Your task to perform on an android device: turn off location Image 0: 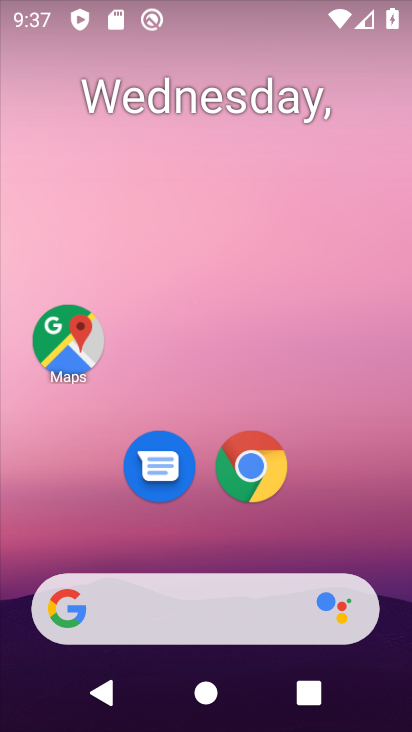
Step 0: drag from (379, 369) to (369, 21)
Your task to perform on an android device: turn off location Image 1: 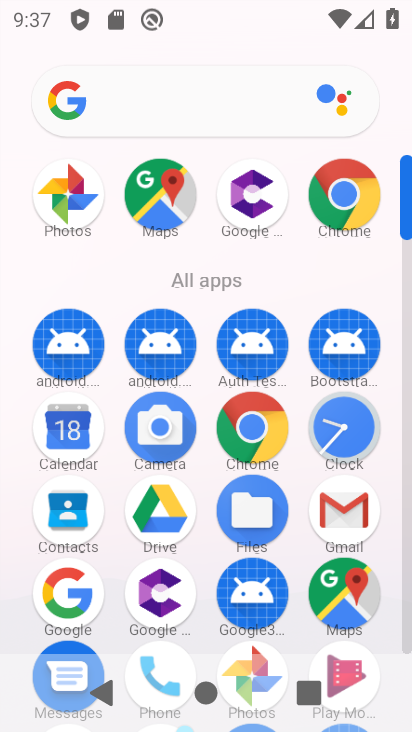
Step 1: drag from (404, 467) to (380, 136)
Your task to perform on an android device: turn off location Image 2: 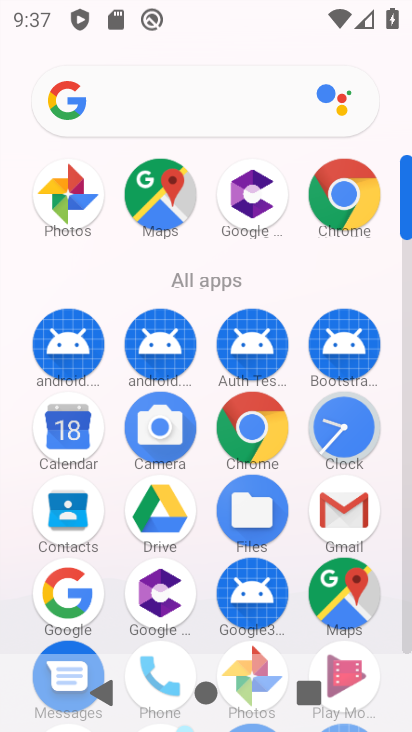
Step 2: drag from (408, 507) to (388, 212)
Your task to perform on an android device: turn off location Image 3: 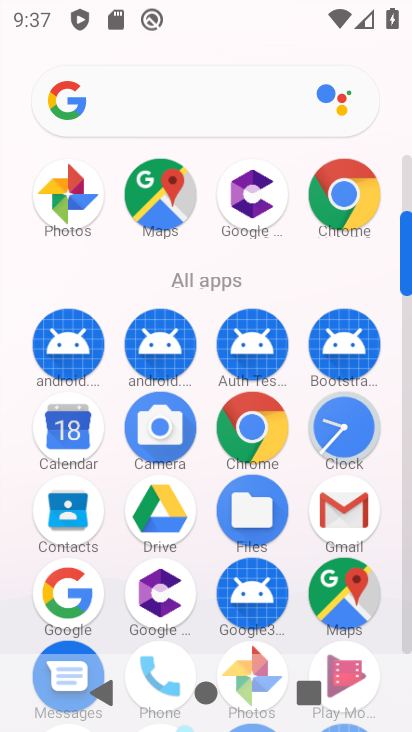
Step 3: drag from (394, 544) to (365, 184)
Your task to perform on an android device: turn off location Image 4: 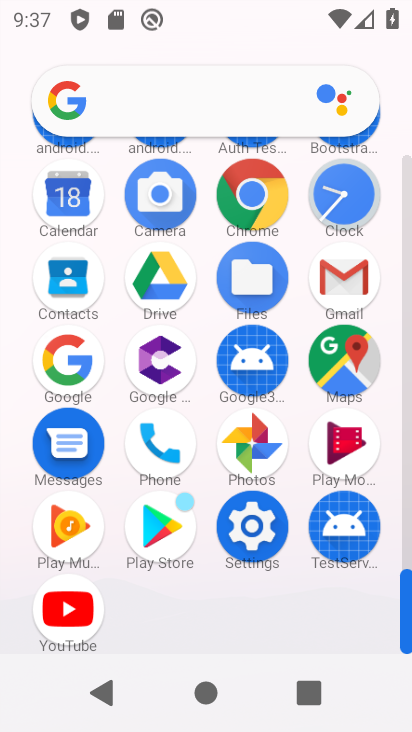
Step 4: click (264, 525)
Your task to perform on an android device: turn off location Image 5: 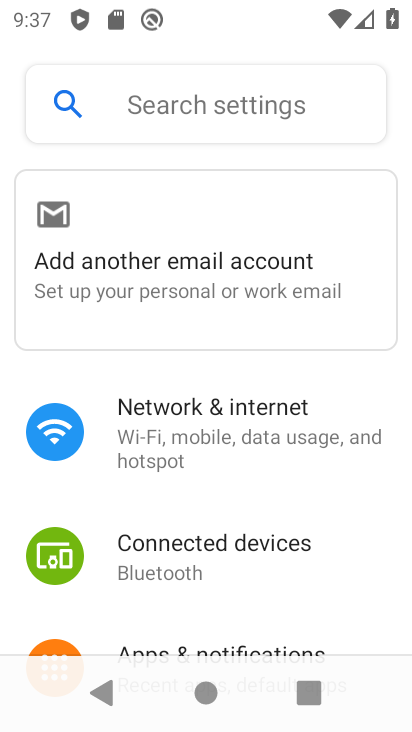
Step 5: drag from (236, 561) to (209, 195)
Your task to perform on an android device: turn off location Image 6: 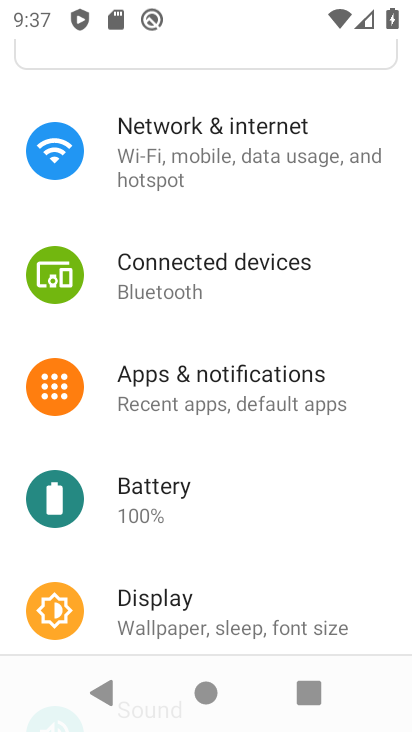
Step 6: drag from (224, 482) to (230, 80)
Your task to perform on an android device: turn off location Image 7: 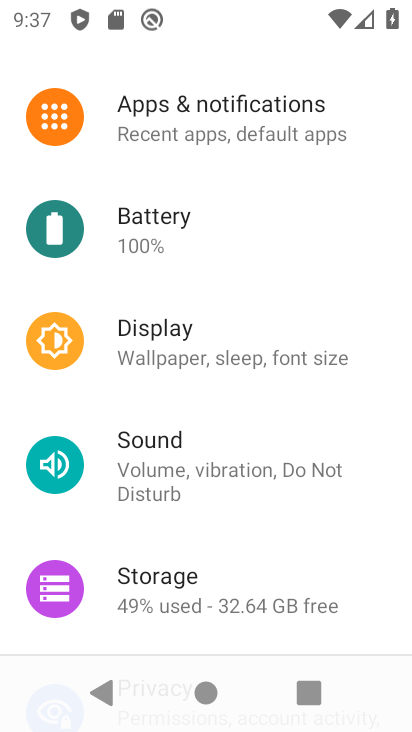
Step 7: drag from (276, 462) to (244, 78)
Your task to perform on an android device: turn off location Image 8: 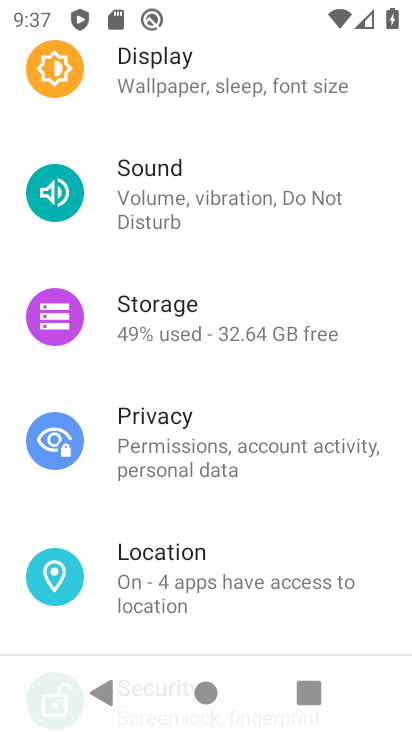
Step 8: click (211, 568)
Your task to perform on an android device: turn off location Image 9: 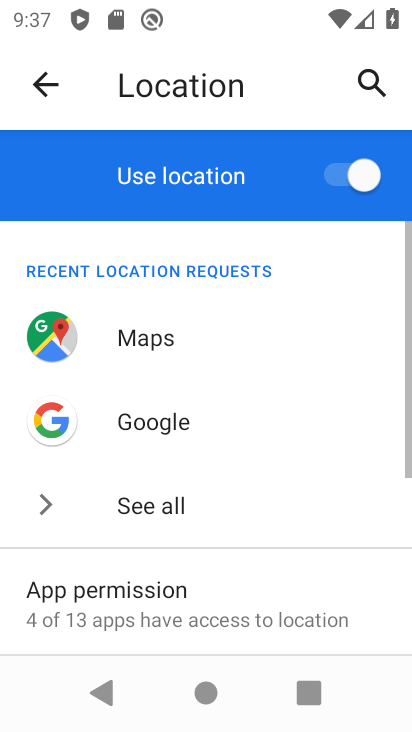
Step 9: click (329, 186)
Your task to perform on an android device: turn off location Image 10: 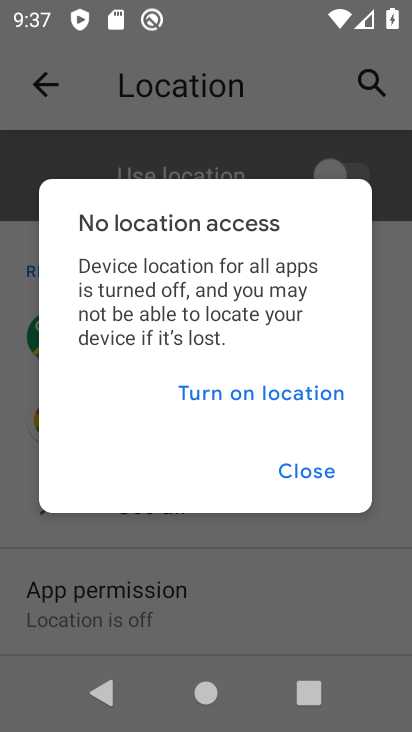
Step 10: task complete